Your task to perform on an android device: Search for Italian restaurants on Maps Image 0: 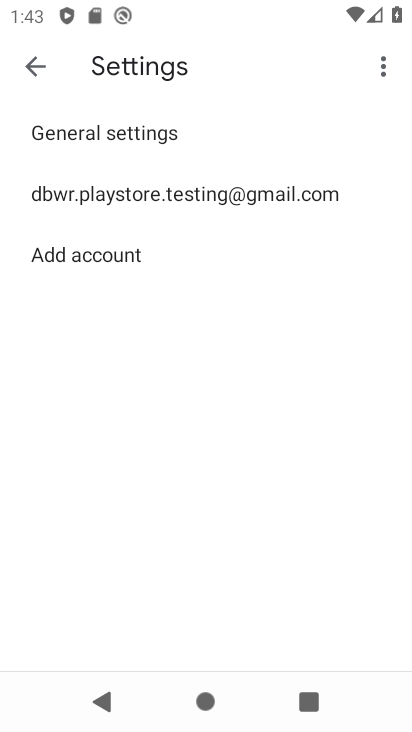
Step 0: press home button
Your task to perform on an android device: Search for Italian restaurants on Maps Image 1: 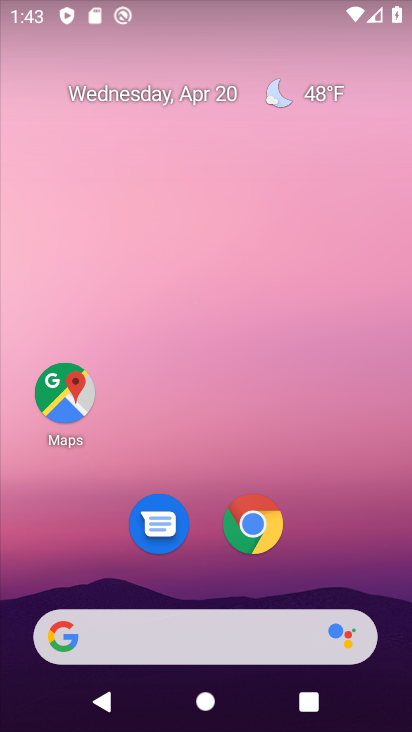
Step 1: click (63, 395)
Your task to perform on an android device: Search for Italian restaurants on Maps Image 2: 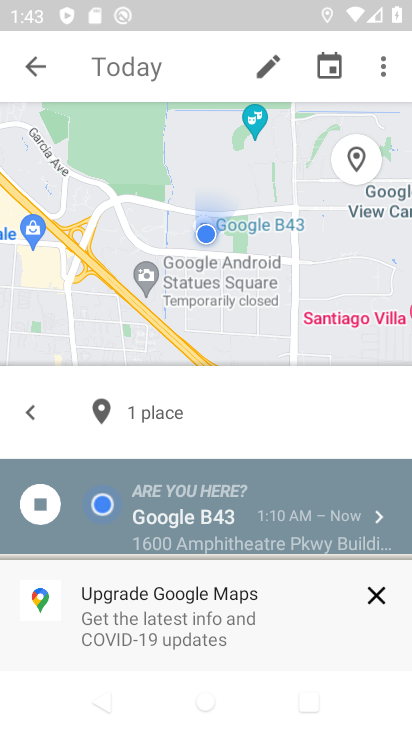
Step 2: click (34, 59)
Your task to perform on an android device: Search for Italian restaurants on Maps Image 3: 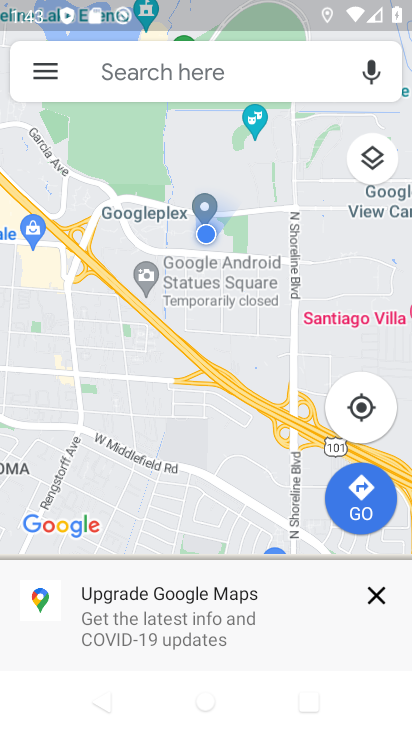
Step 3: click (103, 59)
Your task to perform on an android device: Search for Italian restaurants on Maps Image 4: 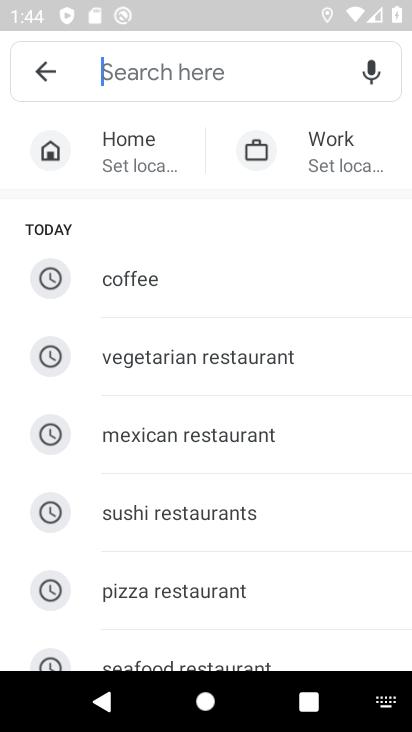
Step 4: drag from (249, 622) to (223, 234)
Your task to perform on an android device: Search for Italian restaurants on Maps Image 5: 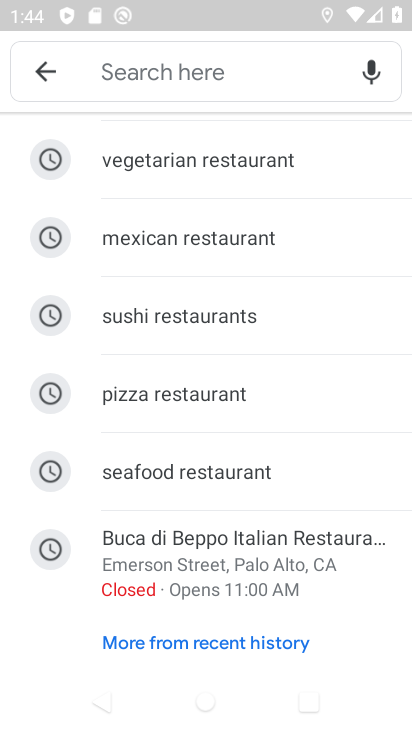
Step 5: drag from (214, 213) to (268, 641)
Your task to perform on an android device: Search for Italian restaurants on Maps Image 6: 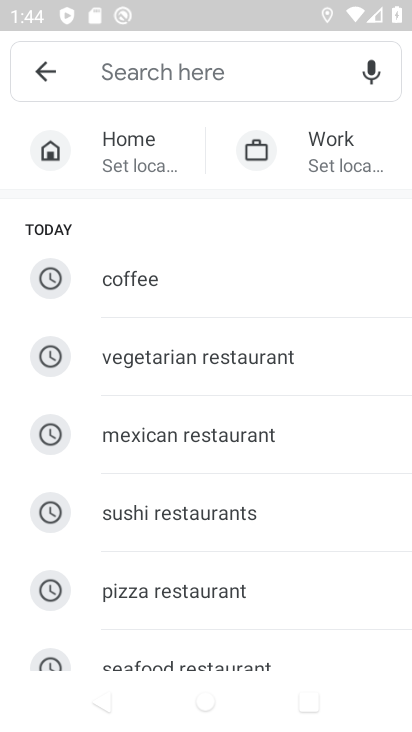
Step 6: click (214, 61)
Your task to perform on an android device: Search for Italian restaurants on Maps Image 7: 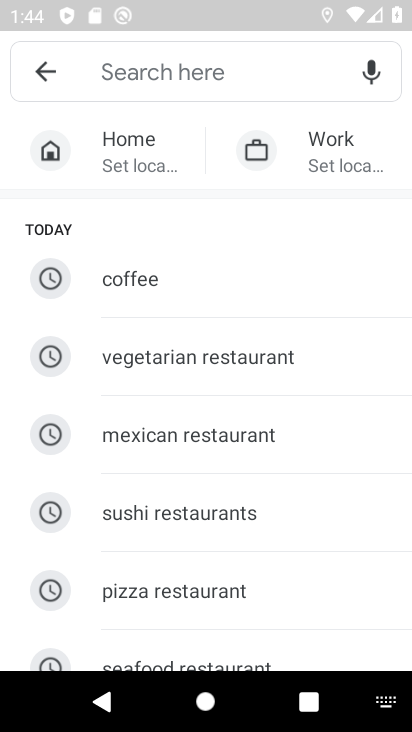
Step 7: type "italian restaurants"
Your task to perform on an android device: Search for Italian restaurants on Maps Image 8: 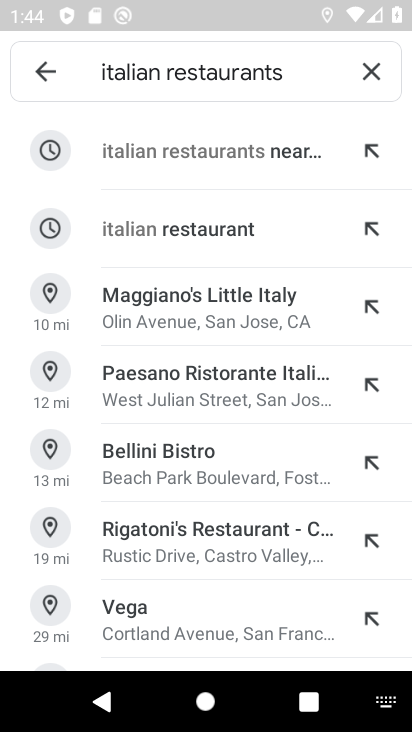
Step 8: click (249, 218)
Your task to perform on an android device: Search for Italian restaurants on Maps Image 9: 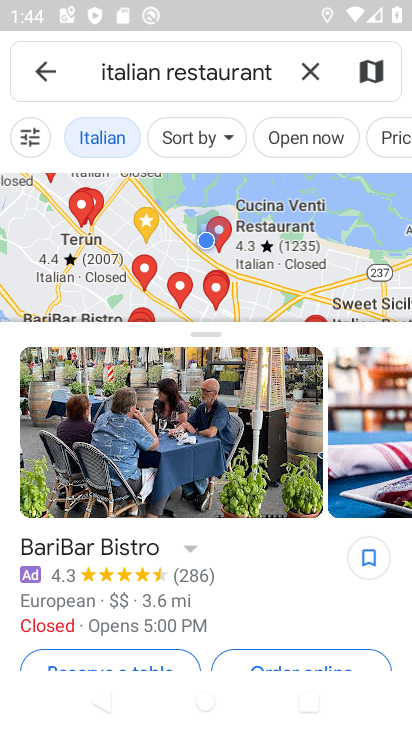
Step 9: task complete